Your task to perform on an android device: turn off picture-in-picture Image 0: 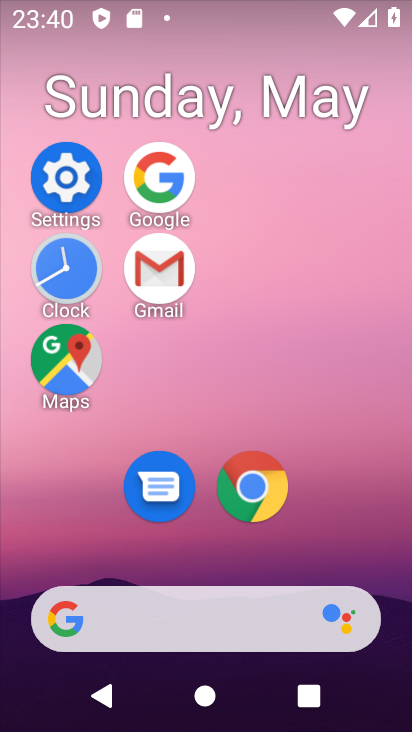
Step 0: click (275, 480)
Your task to perform on an android device: turn off picture-in-picture Image 1: 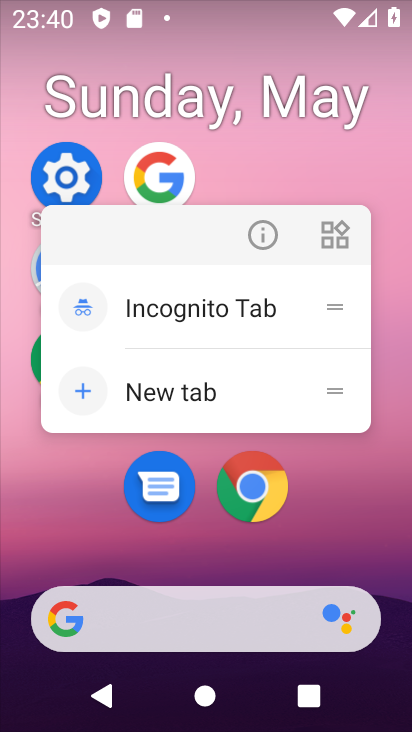
Step 1: click (262, 240)
Your task to perform on an android device: turn off picture-in-picture Image 2: 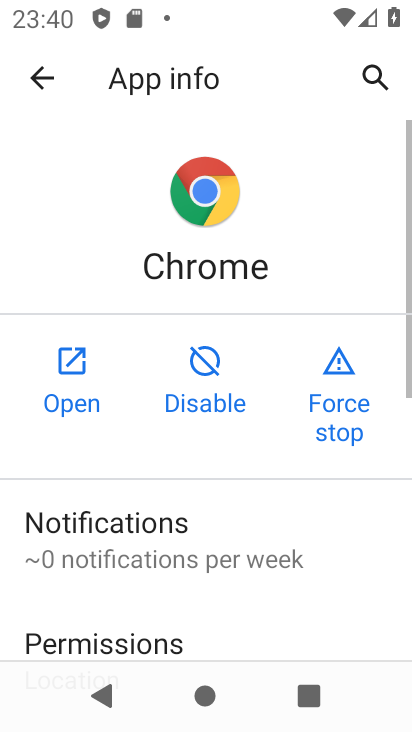
Step 2: drag from (289, 501) to (284, 213)
Your task to perform on an android device: turn off picture-in-picture Image 3: 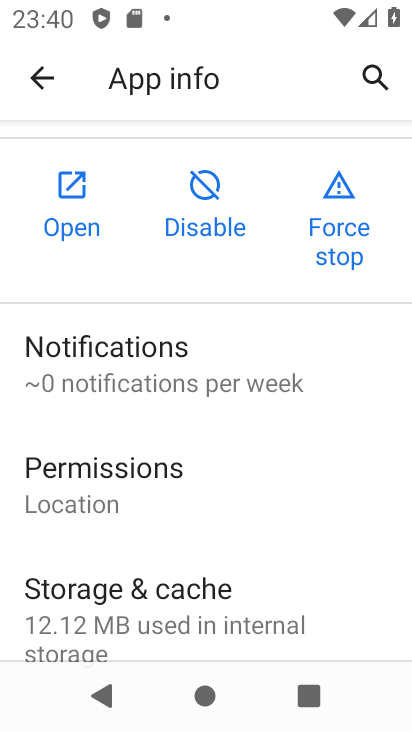
Step 3: drag from (323, 577) to (304, 161)
Your task to perform on an android device: turn off picture-in-picture Image 4: 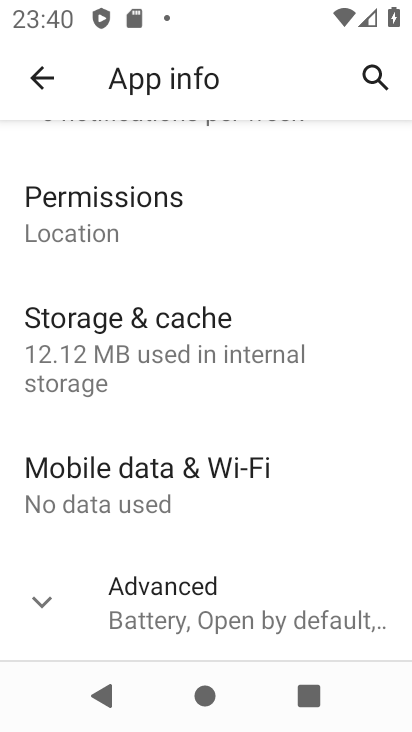
Step 4: click (256, 585)
Your task to perform on an android device: turn off picture-in-picture Image 5: 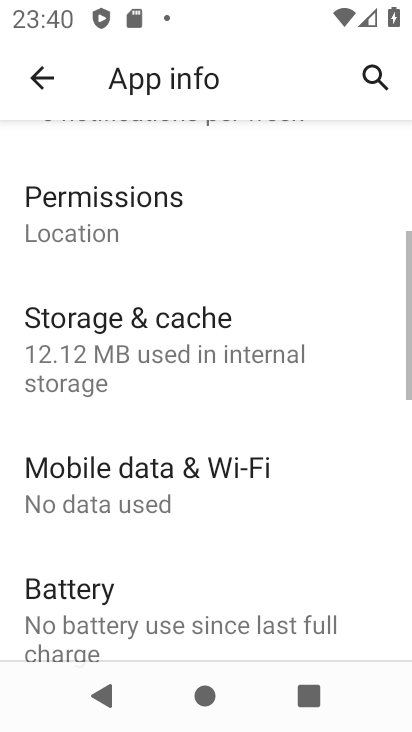
Step 5: drag from (296, 435) to (303, 91)
Your task to perform on an android device: turn off picture-in-picture Image 6: 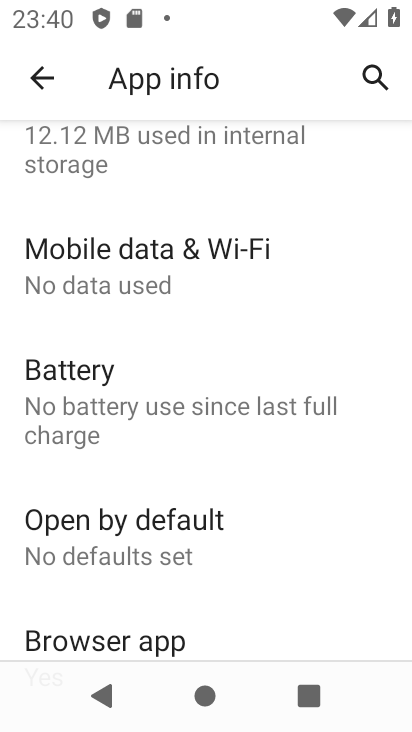
Step 6: drag from (328, 558) to (314, 161)
Your task to perform on an android device: turn off picture-in-picture Image 7: 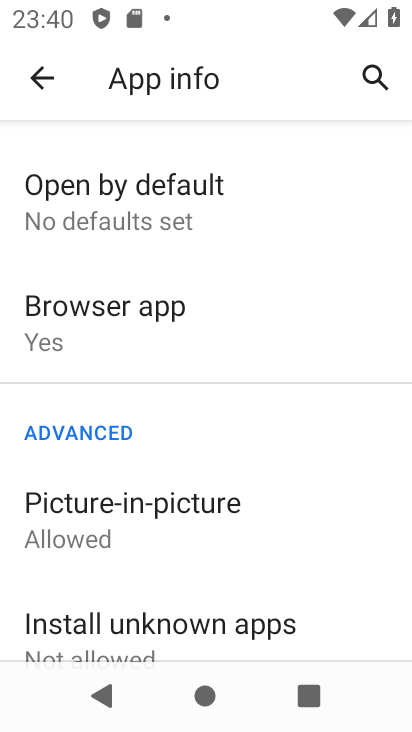
Step 7: click (298, 523)
Your task to perform on an android device: turn off picture-in-picture Image 8: 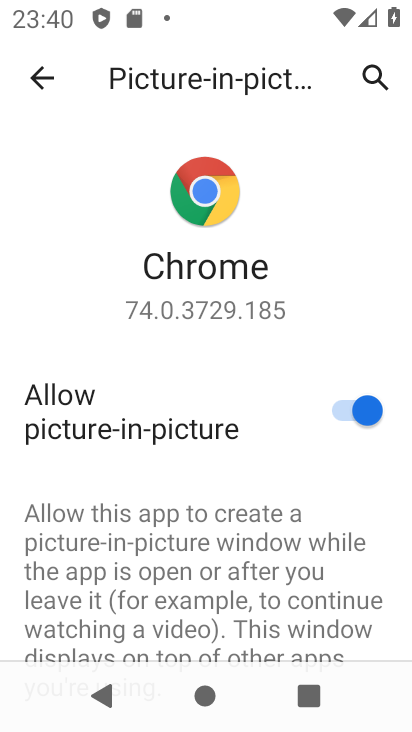
Step 8: click (358, 411)
Your task to perform on an android device: turn off picture-in-picture Image 9: 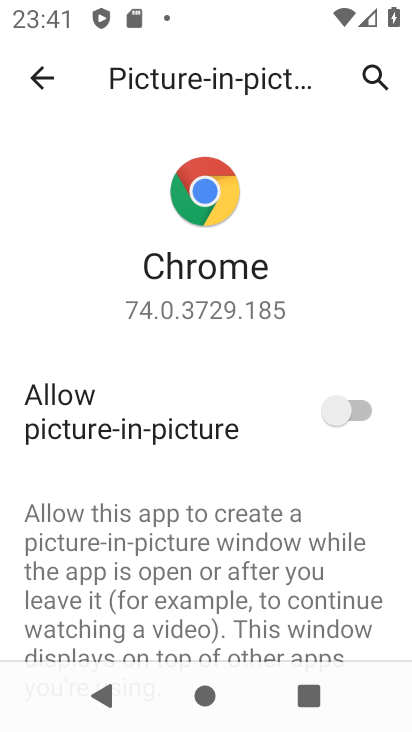
Step 9: task complete